Your task to perform on an android device: turn on translation in the chrome app Image 0: 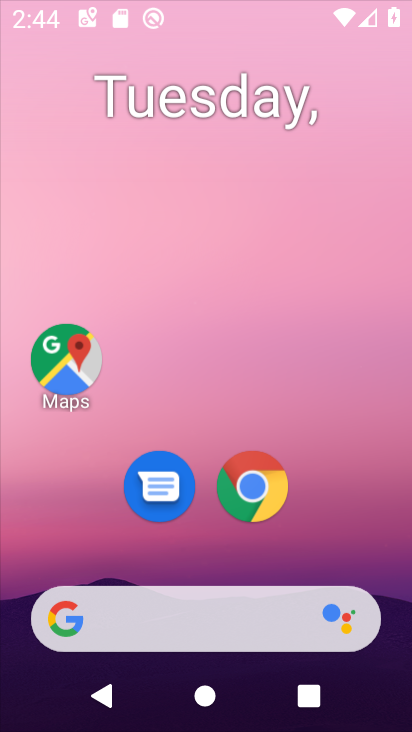
Step 0: press home button
Your task to perform on an android device: turn on translation in the chrome app Image 1: 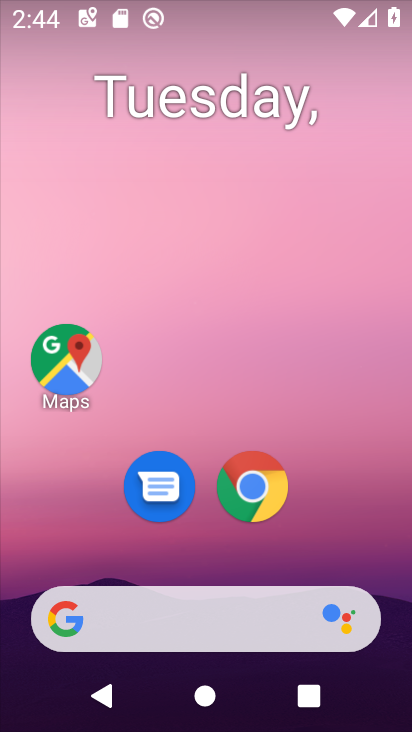
Step 1: click (245, 480)
Your task to perform on an android device: turn on translation in the chrome app Image 2: 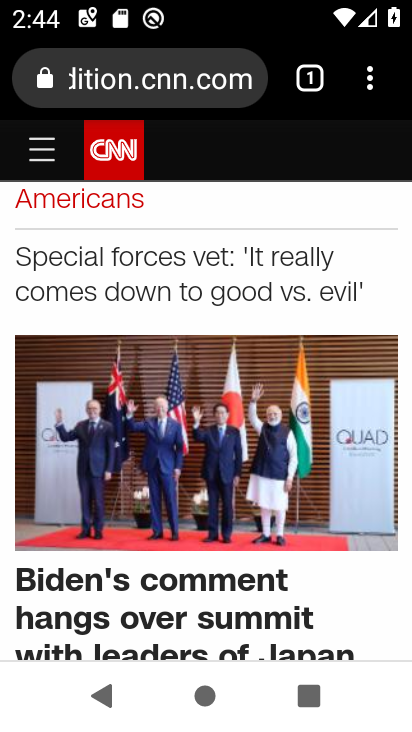
Step 2: click (369, 70)
Your task to perform on an android device: turn on translation in the chrome app Image 3: 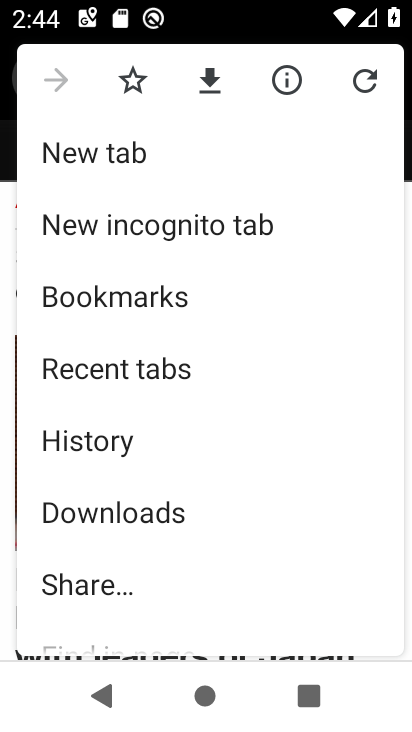
Step 3: drag from (190, 595) to (207, 139)
Your task to perform on an android device: turn on translation in the chrome app Image 4: 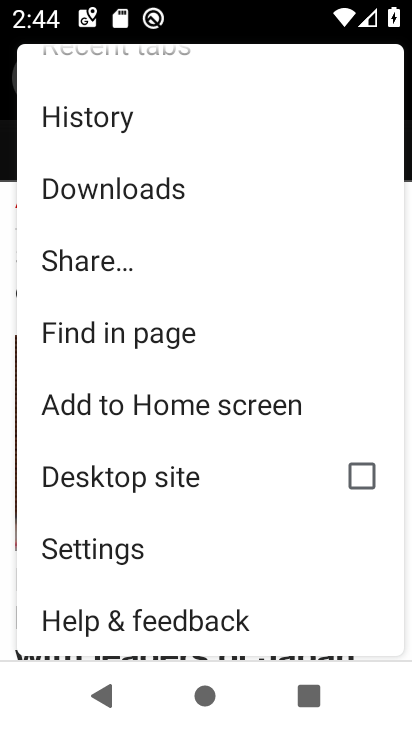
Step 4: click (155, 548)
Your task to perform on an android device: turn on translation in the chrome app Image 5: 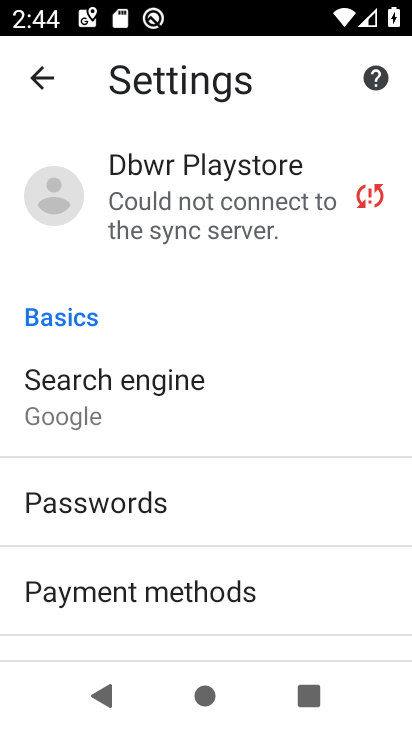
Step 5: drag from (270, 620) to (293, 133)
Your task to perform on an android device: turn on translation in the chrome app Image 6: 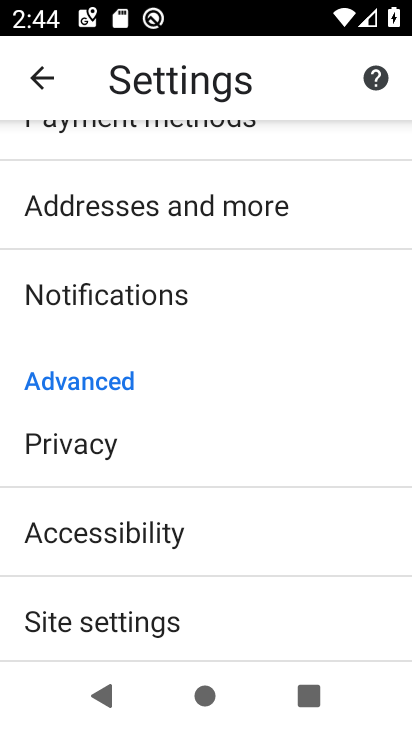
Step 6: drag from (207, 622) to (247, 305)
Your task to perform on an android device: turn on translation in the chrome app Image 7: 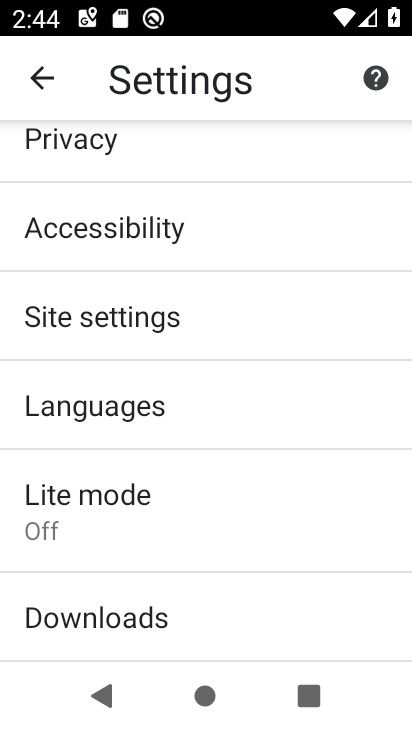
Step 7: click (193, 311)
Your task to perform on an android device: turn on translation in the chrome app Image 8: 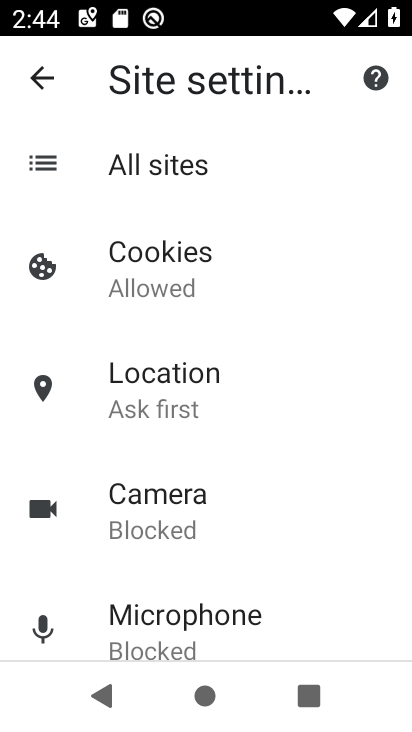
Step 8: drag from (227, 632) to (249, 465)
Your task to perform on an android device: turn on translation in the chrome app Image 9: 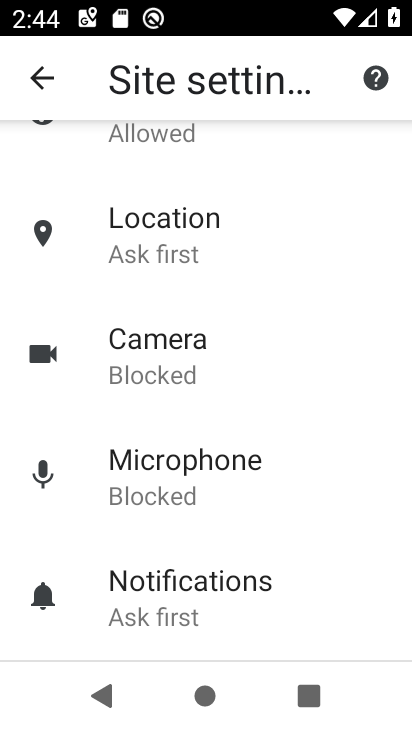
Step 9: click (42, 85)
Your task to perform on an android device: turn on translation in the chrome app Image 10: 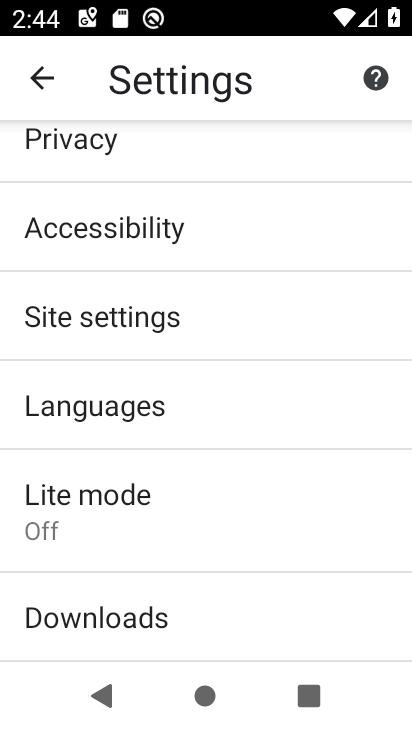
Step 10: click (181, 402)
Your task to perform on an android device: turn on translation in the chrome app Image 11: 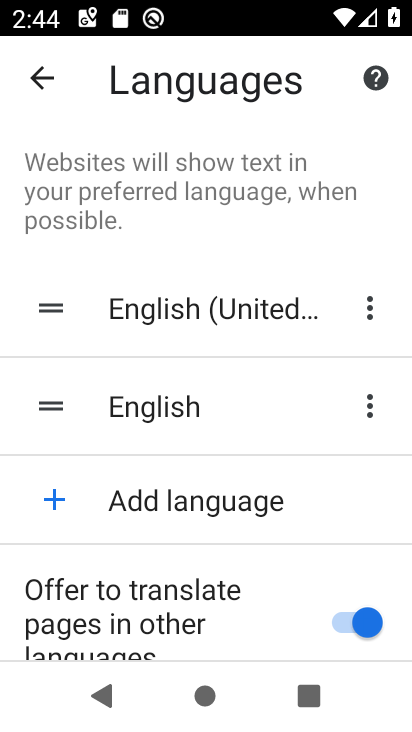
Step 11: task complete